Your task to perform on an android device: set default search engine in the chrome app Image 0: 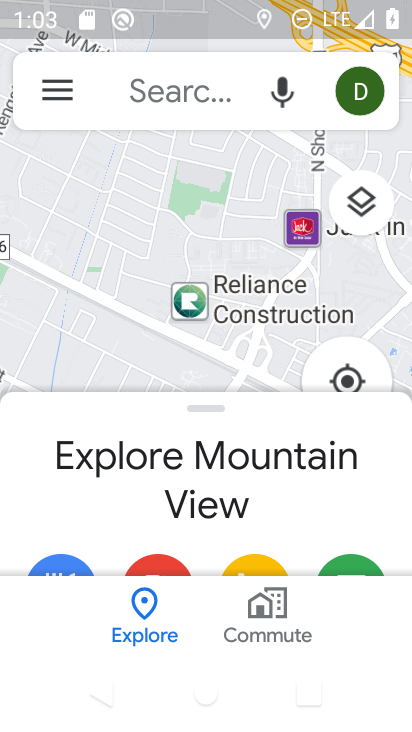
Step 0: press home button
Your task to perform on an android device: set default search engine in the chrome app Image 1: 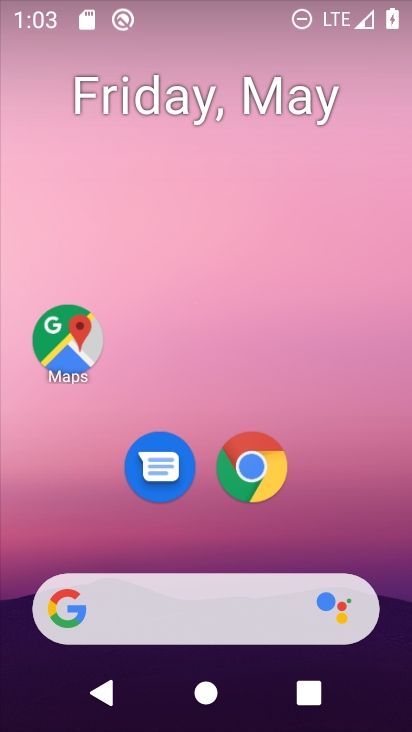
Step 1: drag from (152, 569) to (236, 31)
Your task to perform on an android device: set default search engine in the chrome app Image 2: 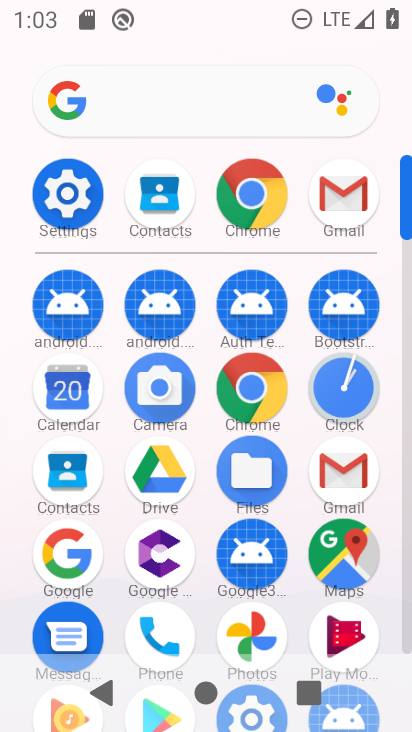
Step 2: click (245, 409)
Your task to perform on an android device: set default search engine in the chrome app Image 3: 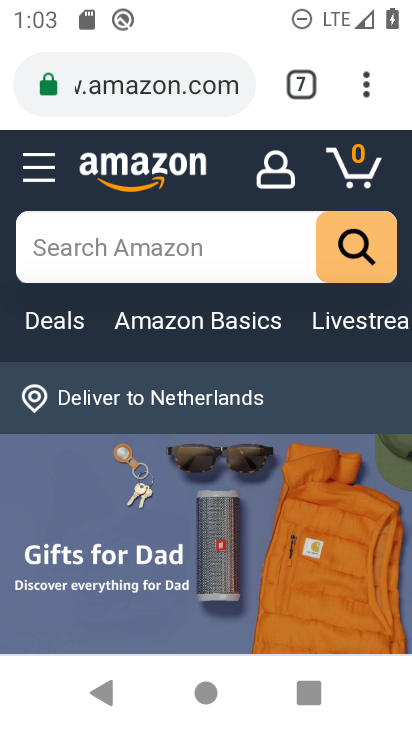
Step 3: click (366, 75)
Your task to perform on an android device: set default search engine in the chrome app Image 4: 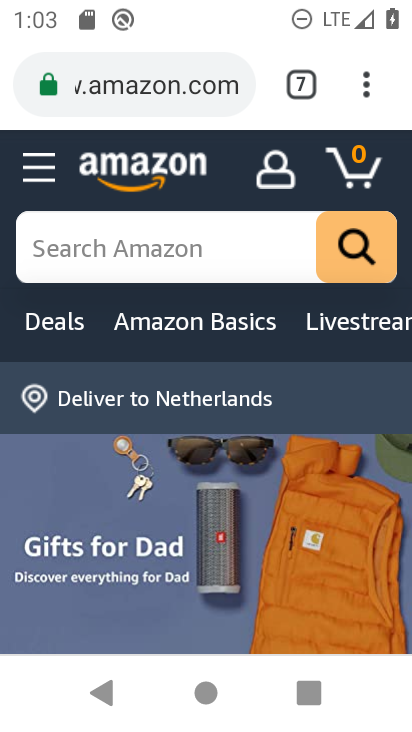
Step 4: drag from (365, 72) to (134, 523)
Your task to perform on an android device: set default search engine in the chrome app Image 5: 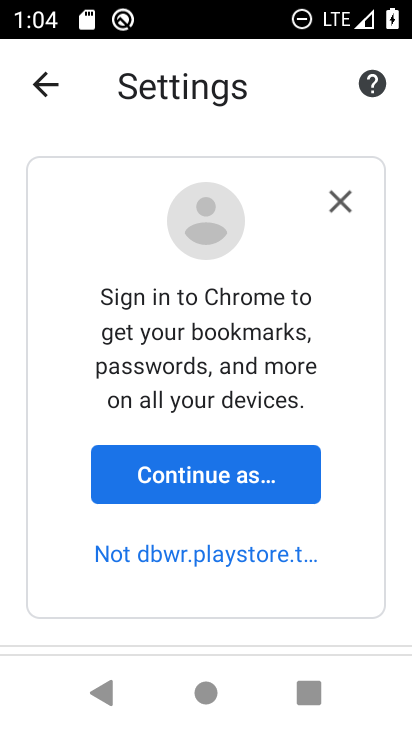
Step 5: drag from (178, 618) to (249, 30)
Your task to perform on an android device: set default search engine in the chrome app Image 6: 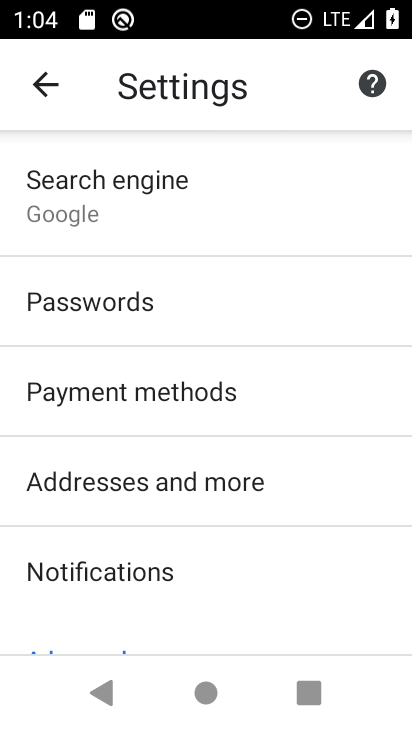
Step 6: click (193, 214)
Your task to perform on an android device: set default search engine in the chrome app Image 7: 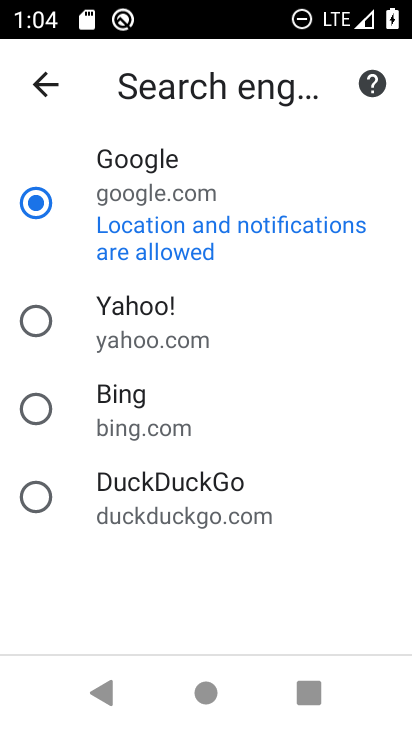
Step 7: task complete